Your task to perform on an android device: check android version Image 0: 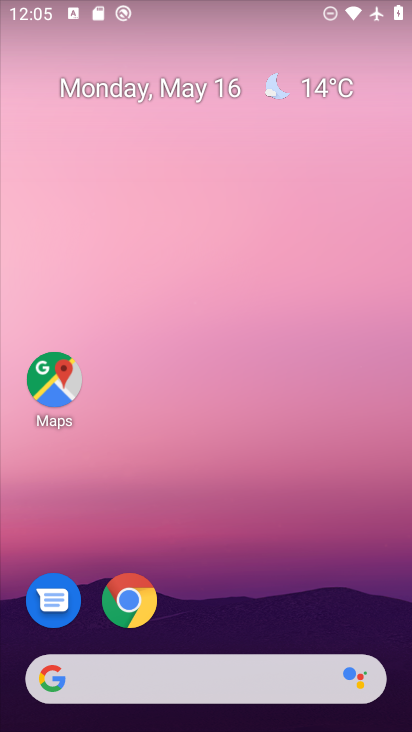
Step 0: drag from (385, 633) to (271, 153)
Your task to perform on an android device: check android version Image 1: 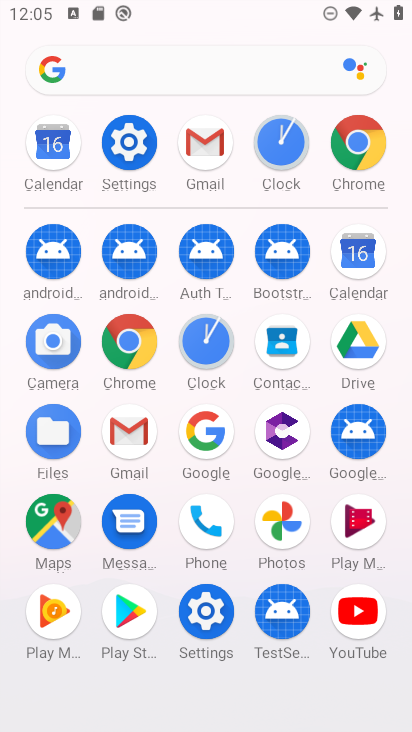
Step 1: click (210, 611)
Your task to perform on an android device: check android version Image 2: 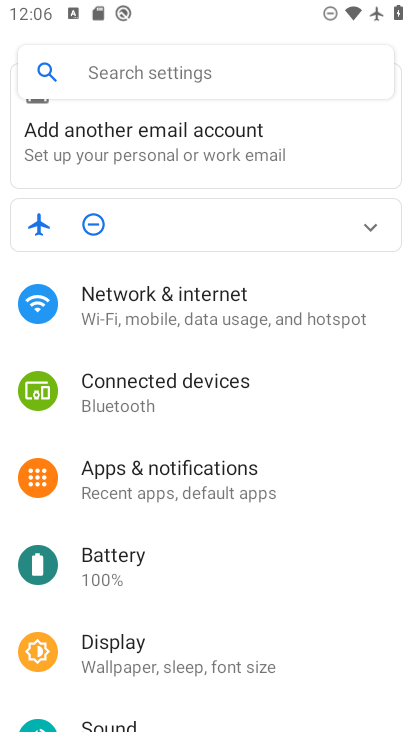
Step 2: drag from (328, 654) to (308, 229)
Your task to perform on an android device: check android version Image 3: 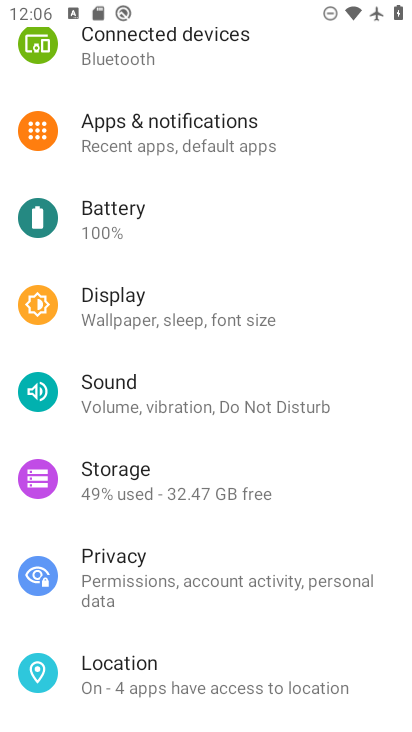
Step 3: drag from (365, 521) to (268, 76)
Your task to perform on an android device: check android version Image 4: 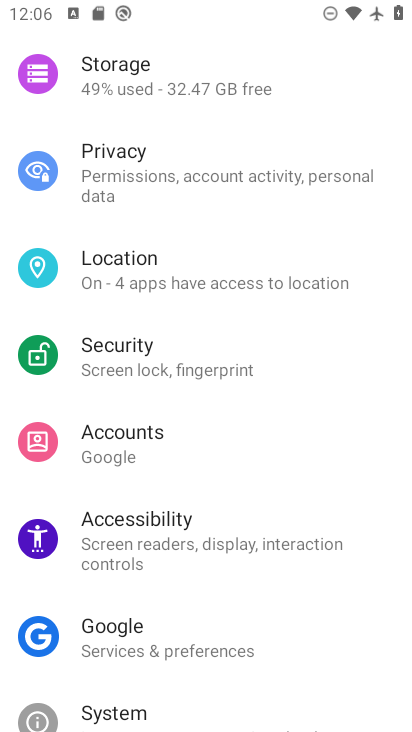
Step 4: drag from (346, 604) to (277, 247)
Your task to perform on an android device: check android version Image 5: 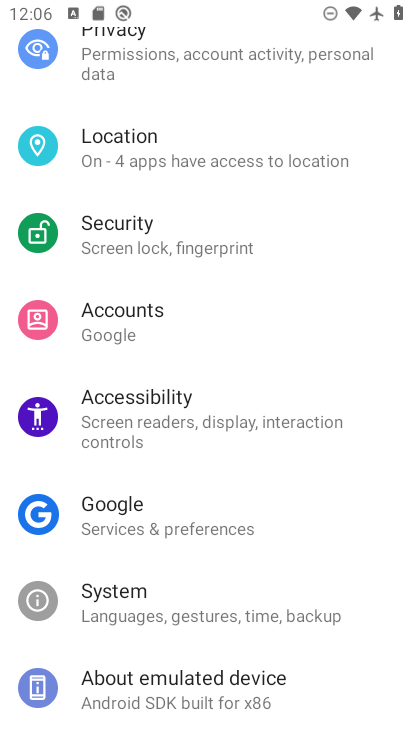
Step 5: click (105, 680)
Your task to perform on an android device: check android version Image 6: 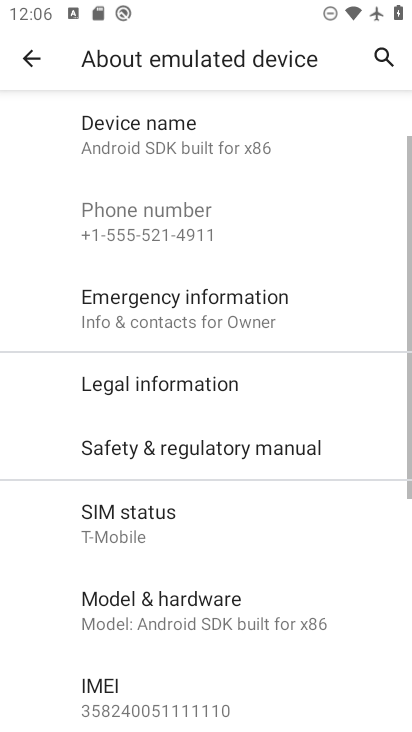
Step 6: drag from (364, 616) to (350, 307)
Your task to perform on an android device: check android version Image 7: 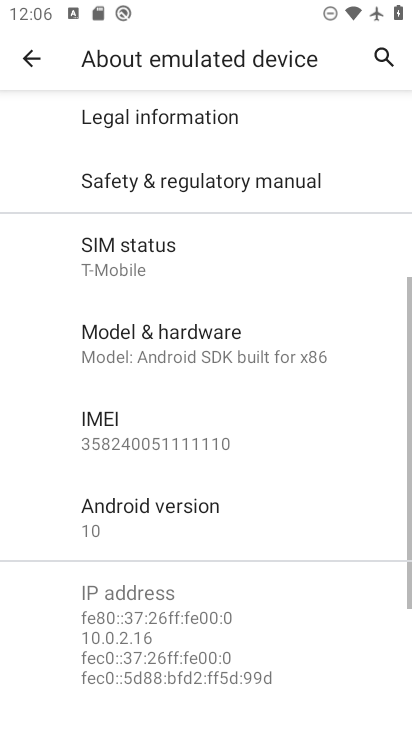
Step 7: click (350, 307)
Your task to perform on an android device: check android version Image 8: 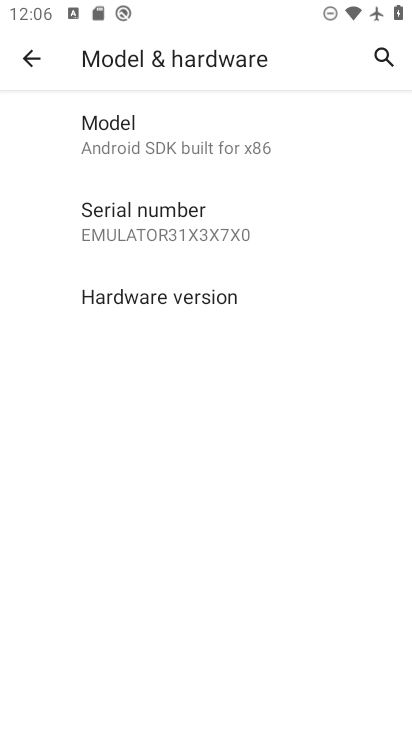
Step 8: task complete